Your task to perform on an android device: Open Youtube and go to the subscriptions tab Image 0: 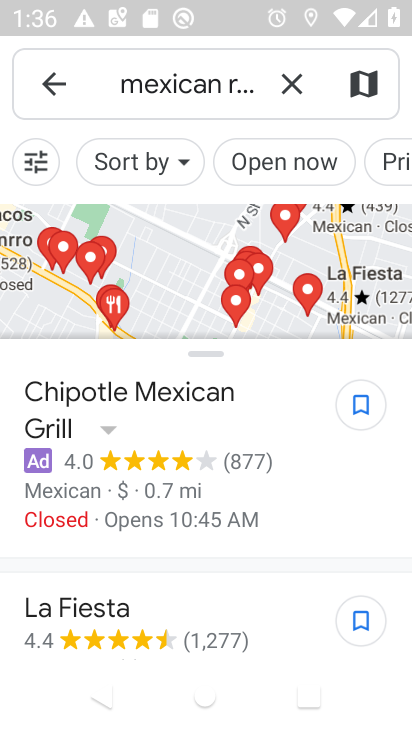
Step 0: press back button
Your task to perform on an android device: Open Youtube and go to the subscriptions tab Image 1: 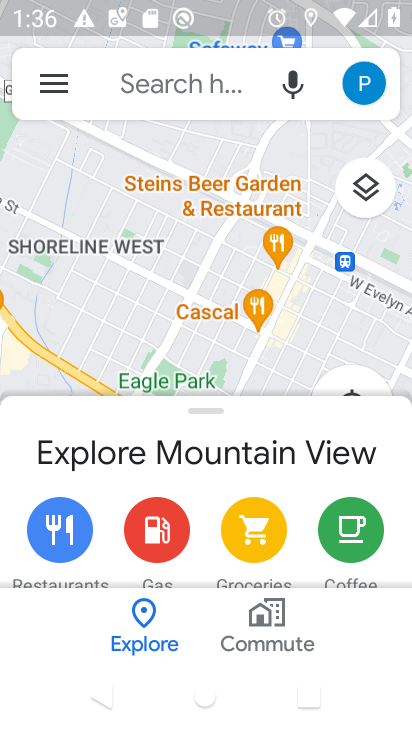
Step 1: press back button
Your task to perform on an android device: Open Youtube and go to the subscriptions tab Image 2: 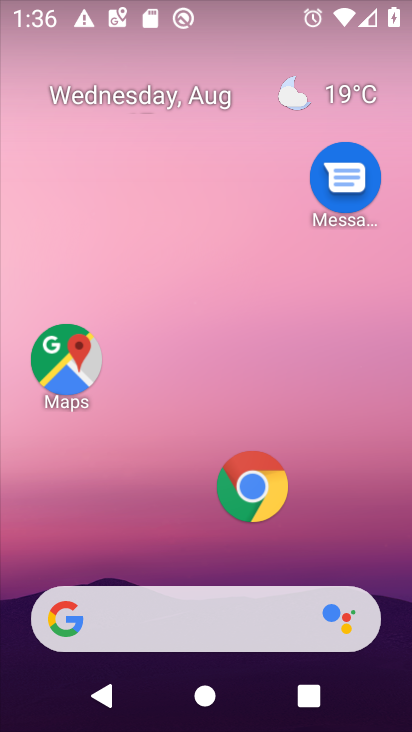
Step 2: drag from (147, 527) to (236, 143)
Your task to perform on an android device: Open Youtube and go to the subscriptions tab Image 3: 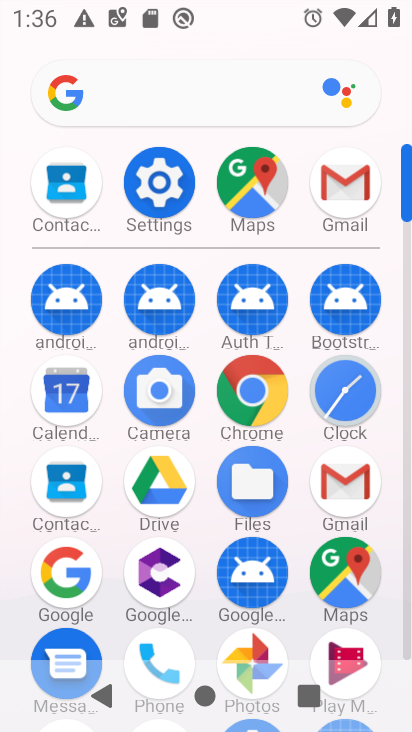
Step 3: drag from (184, 538) to (308, 21)
Your task to perform on an android device: Open Youtube and go to the subscriptions tab Image 4: 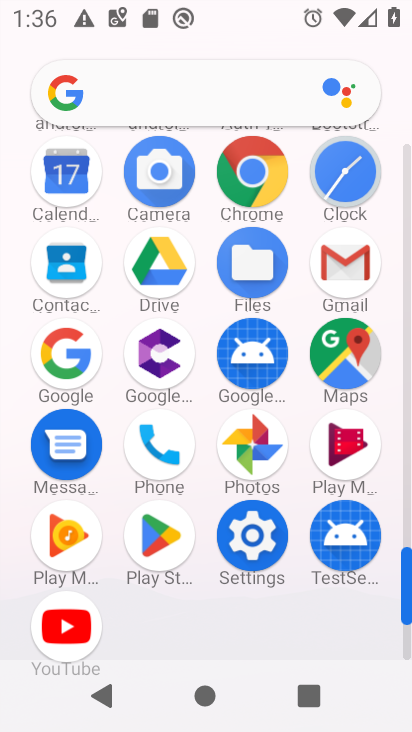
Step 4: click (59, 603)
Your task to perform on an android device: Open Youtube and go to the subscriptions tab Image 5: 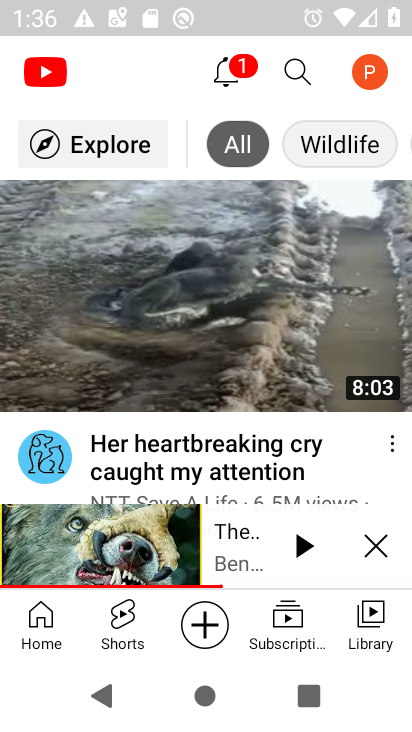
Step 5: click (286, 622)
Your task to perform on an android device: Open Youtube and go to the subscriptions tab Image 6: 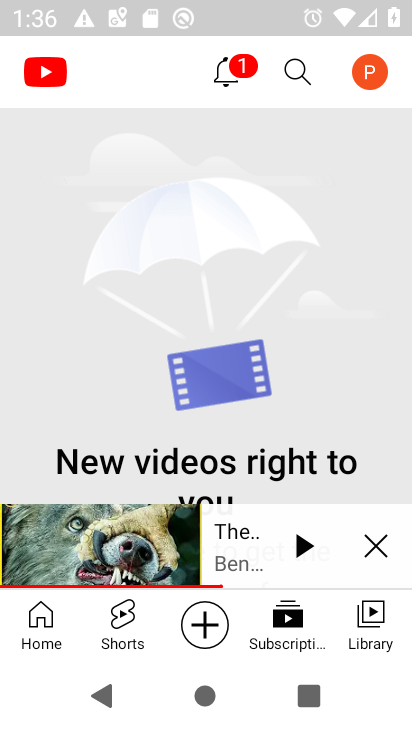
Step 6: task complete